Your task to perform on an android device: remove spam from my inbox in the gmail app Image 0: 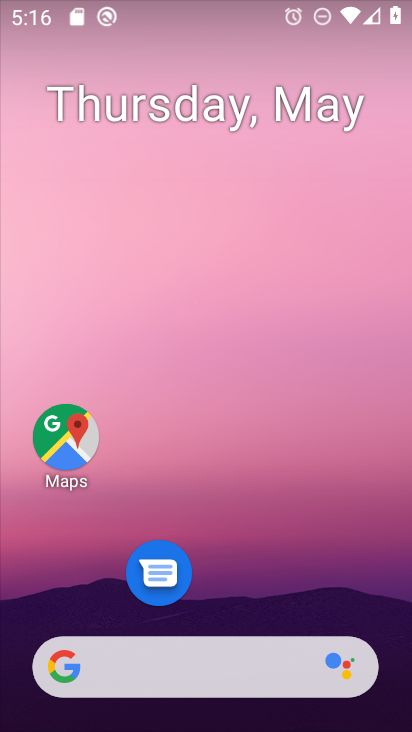
Step 0: drag from (236, 614) to (177, 35)
Your task to perform on an android device: remove spam from my inbox in the gmail app Image 1: 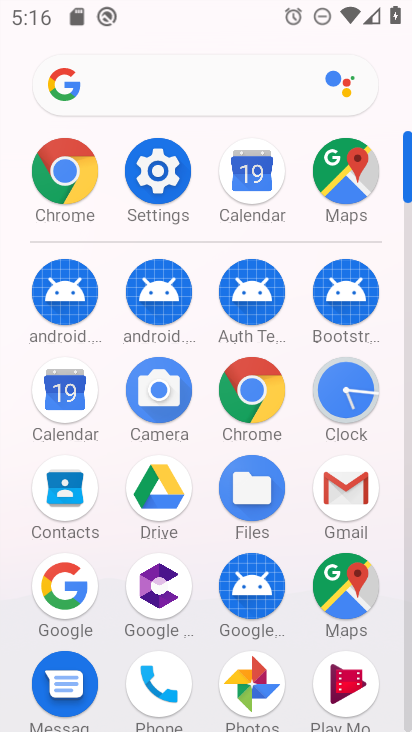
Step 1: click (354, 500)
Your task to perform on an android device: remove spam from my inbox in the gmail app Image 2: 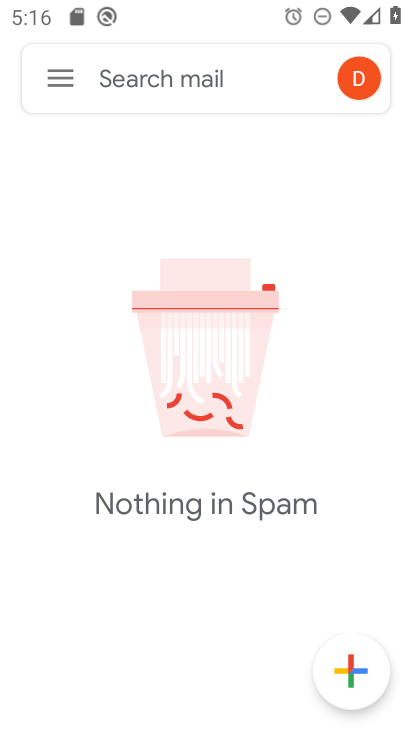
Step 2: click (63, 83)
Your task to perform on an android device: remove spam from my inbox in the gmail app Image 3: 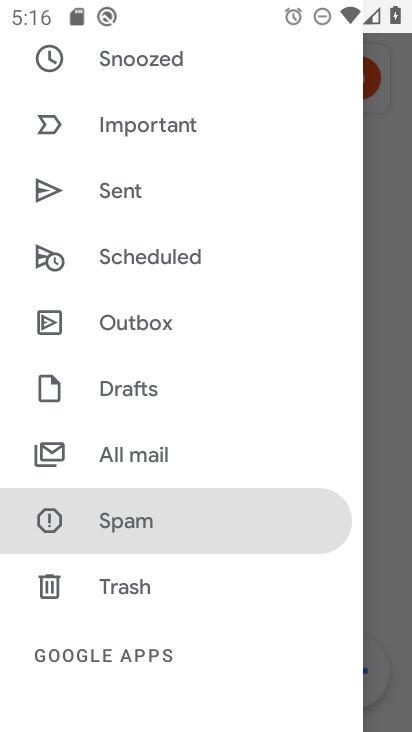
Step 3: drag from (187, 140) to (233, 453)
Your task to perform on an android device: remove spam from my inbox in the gmail app Image 4: 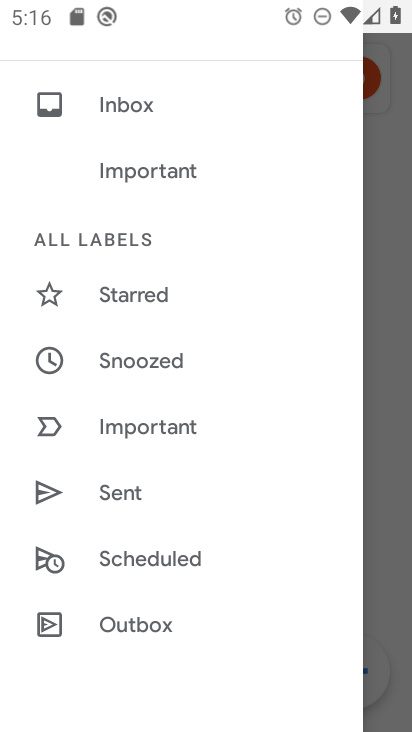
Step 4: drag from (159, 586) to (150, 317)
Your task to perform on an android device: remove spam from my inbox in the gmail app Image 5: 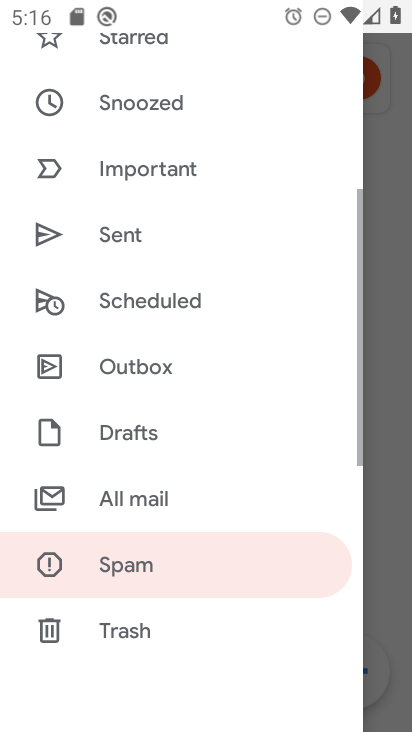
Step 5: drag from (166, 586) to (166, 325)
Your task to perform on an android device: remove spam from my inbox in the gmail app Image 6: 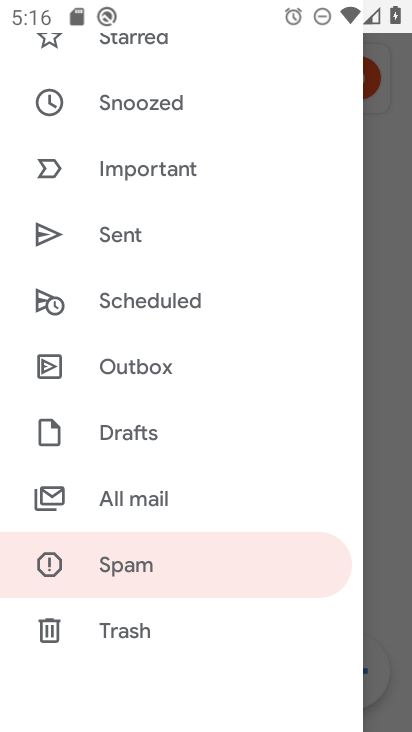
Step 6: click (122, 568)
Your task to perform on an android device: remove spam from my inbox in the gmail app Image 7: 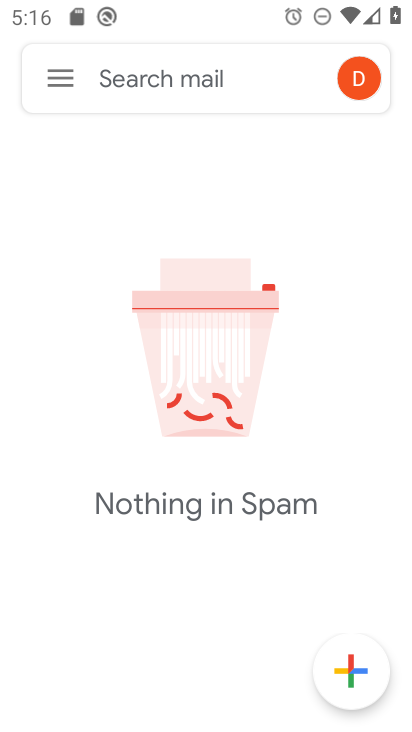
Step 7: task complete